Your task to perform on an android device: turn off location Image 0: 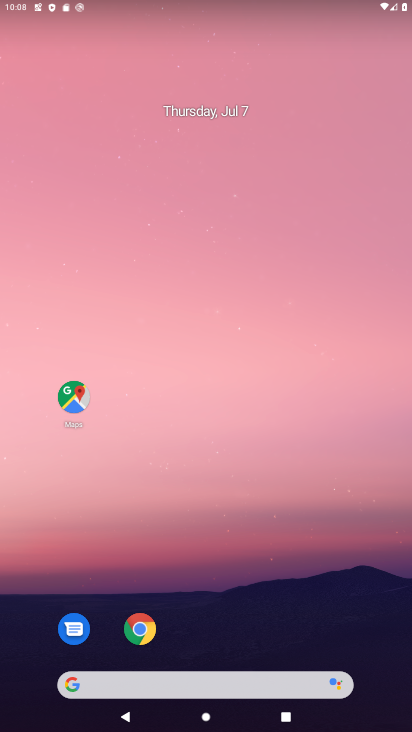
Step 0: press home button
Your task to perform on an android device: turn off location Image 1: 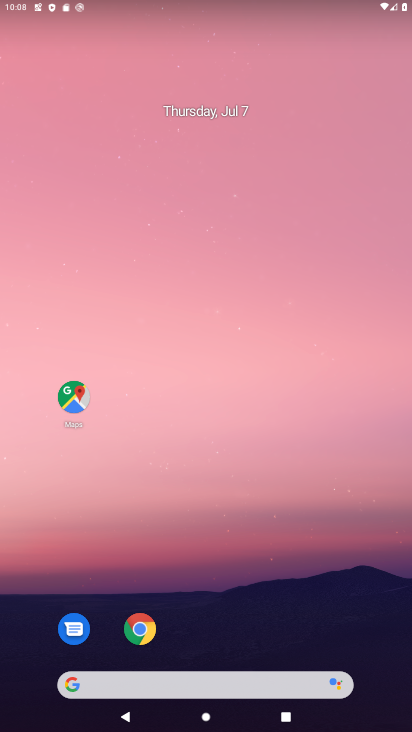
Step 1: drag from (254, 635) to (194, 100)
Your task to perform on an android device: turn off location Image 2: 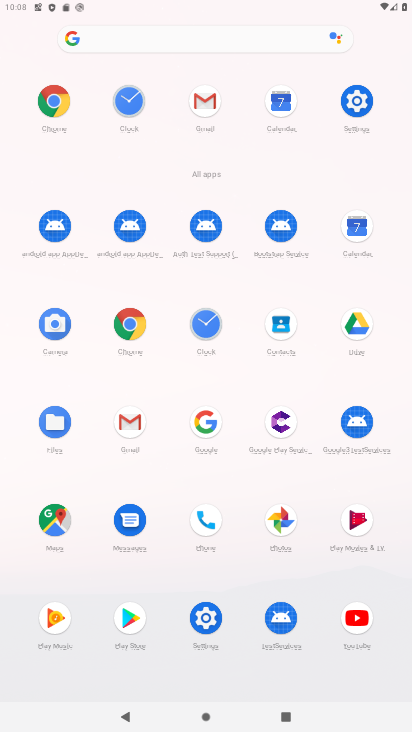
Step 2: click (363, 111)
Your task to perform on an android device: turn off location Image 3: 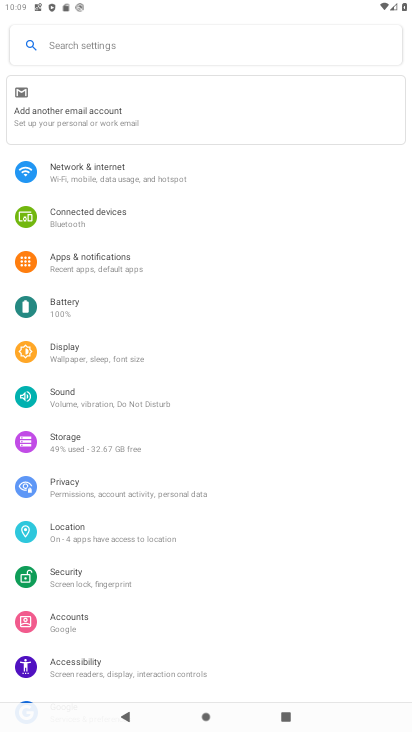
Step 3: click (75, 538)
Your task to perform on an android device: turn off location Image 4: 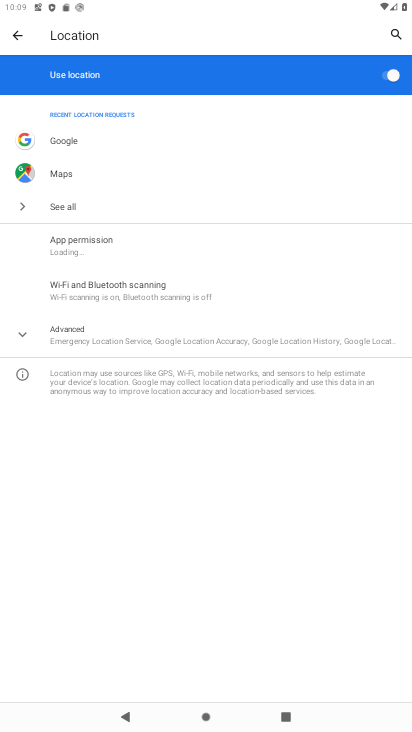
Step 4: click (395, 73)
Your task to perform on an android device: turn off location Image 5: 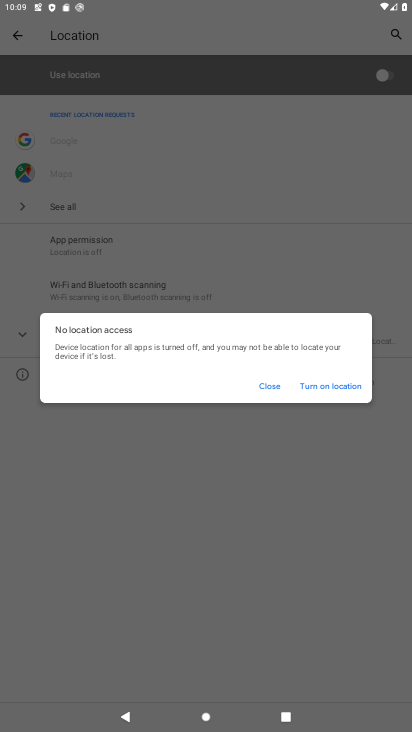
Step 5: task complete